Your task to perform on an android device: allow cookies in the chrome app Image 0: 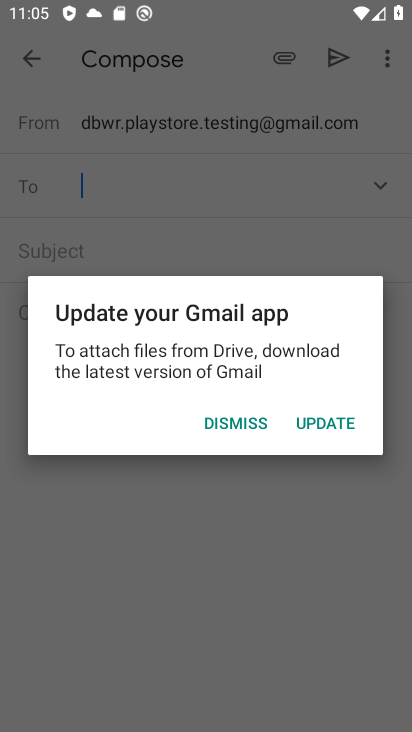
Step 0: press home button
Your task to perform on an android device: allow cookies in the chrome app Image 1: 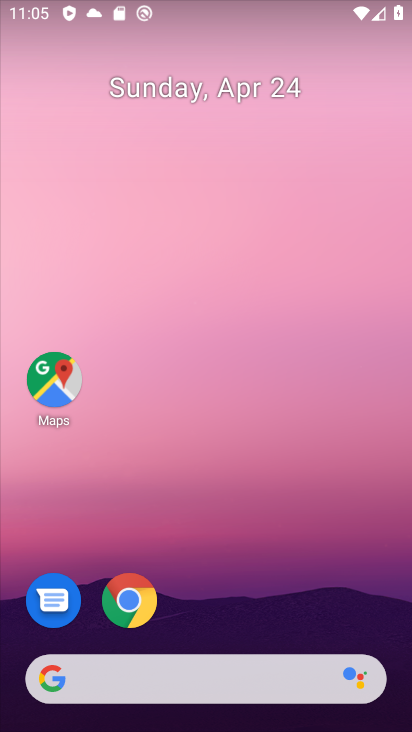
Step 1: click (127, 617)
Your task to perform on an android device: allow cookies in the chrome app Image 2: 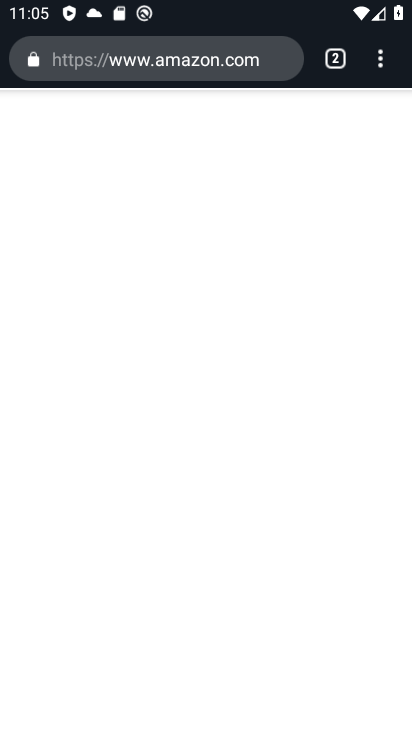
Step 2: click (380, 66)
Your task to perform on an android device: allow cookies in the chrome app Image 3: 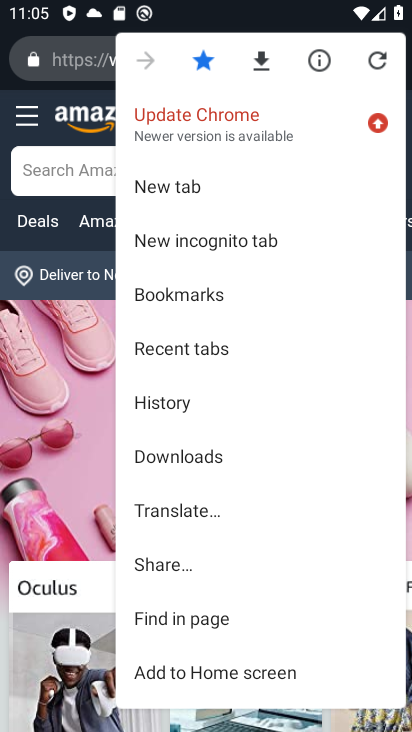
Step 3: drag from (265, 600) to (217, 303)
Your task to perform on an android device: allow cookies in the chrome app Image 4: 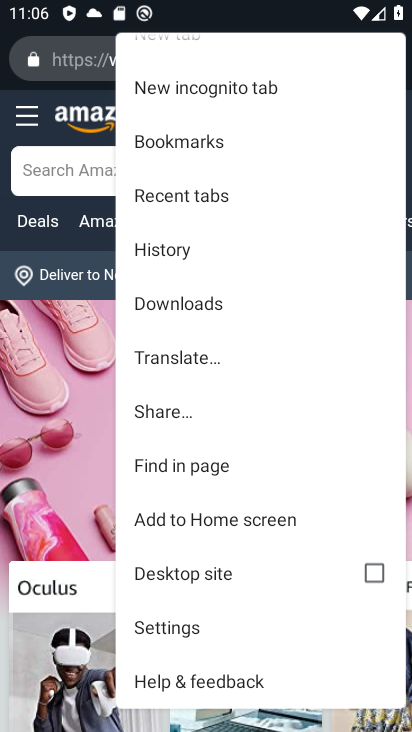
Step 4: click (160, 630)
Your task to perform on an android device: allow cookies in the chrome app Image 5: 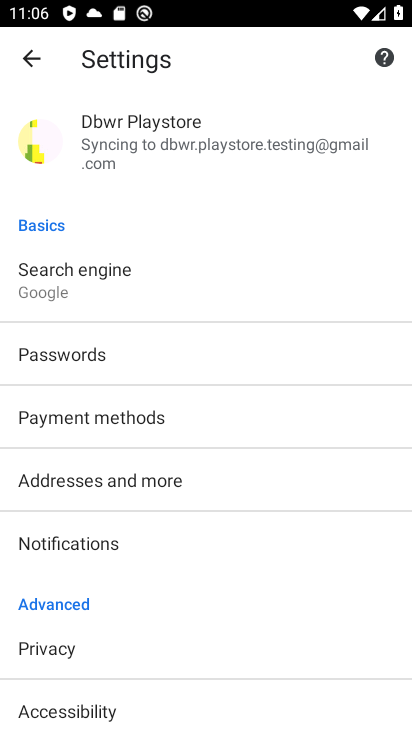
Step 5: drag from (200, 592) to (66, 36)
Your task to perform on an android device: allow cookies in the chrome app Image 6: 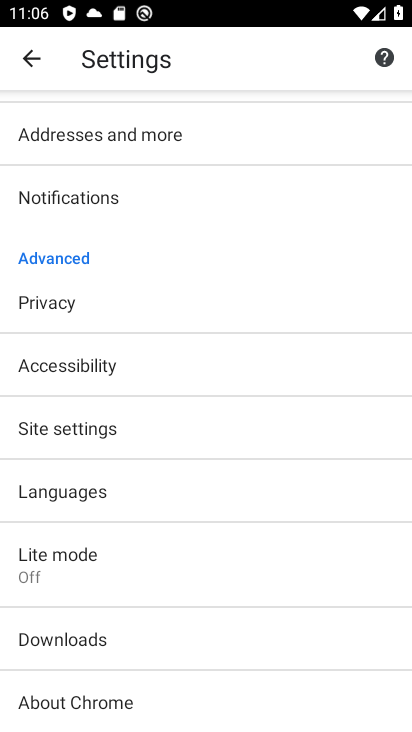
Step 6: click (61, 432)
Your task to perform on an android device: allow cookies in the chrome app Image 7: 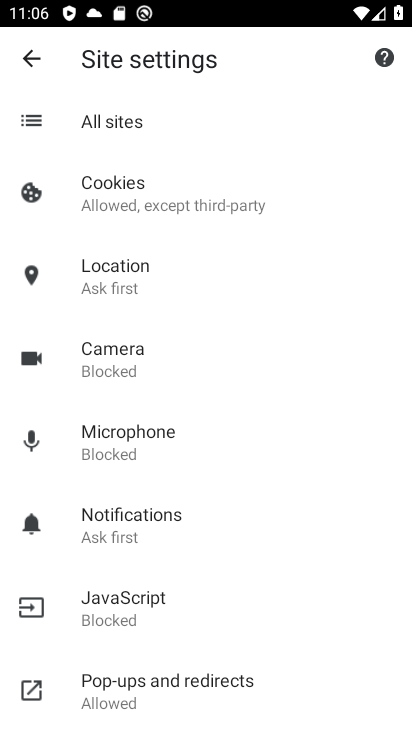
Step 7: click (101, 183)
Your task to perform on an android device: allow cookies in the chrome app Image 8: 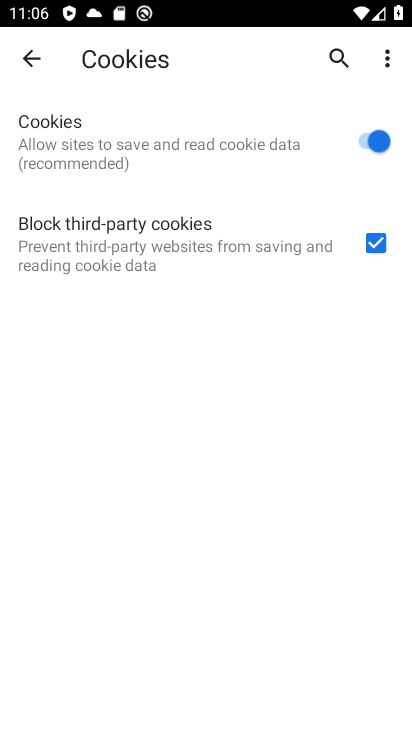
Step 8: task complete